Your task to perform on an android device: turn off improve location accuracy Image 0: 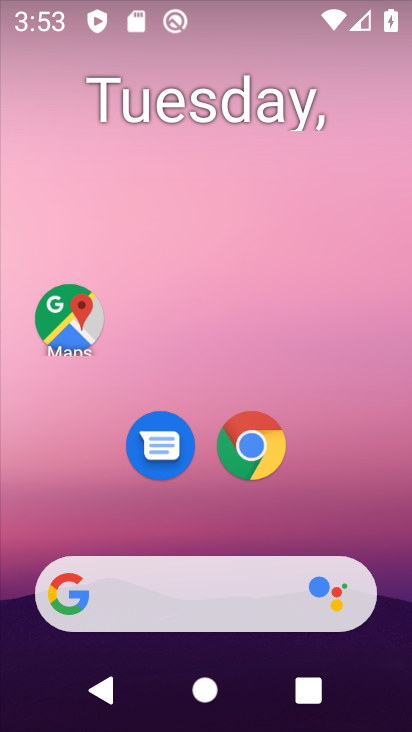
Step 0: drag from (284, 608) to (321, 21)
Your task to perform on an android device: turn off improve location accuracy Image 1: 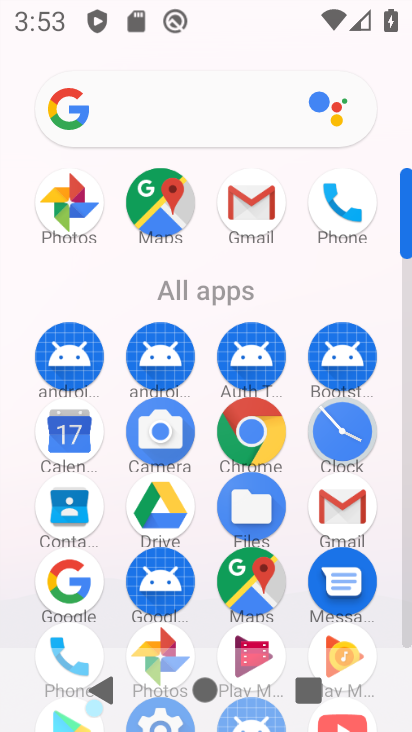
Step 1: drag from (292, 625) to (323, 140)
Your task to perform on an android device: turn off improve location accuracy Image 2: 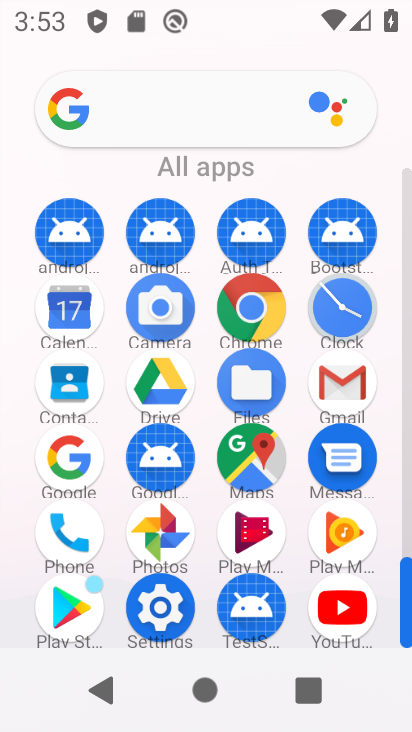
Step 2: click (172, 610)
Your task to perform on an android device: turn off improve location accuracy Image 3: 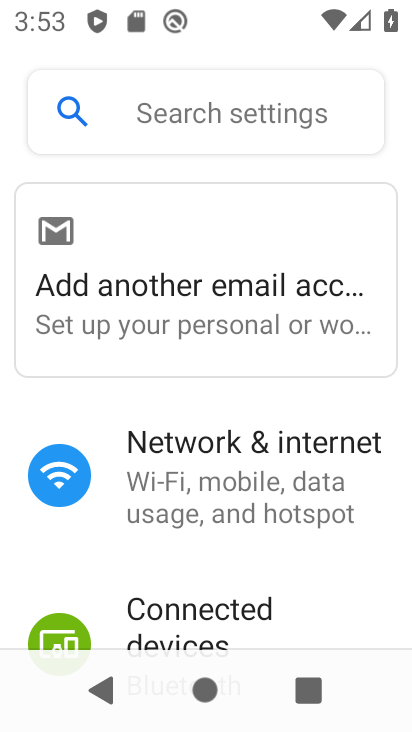
Step 3: drag from (189, 607) to (267, 6)
Your task to perform on an android device: turn off improve location accuracy Image 4: 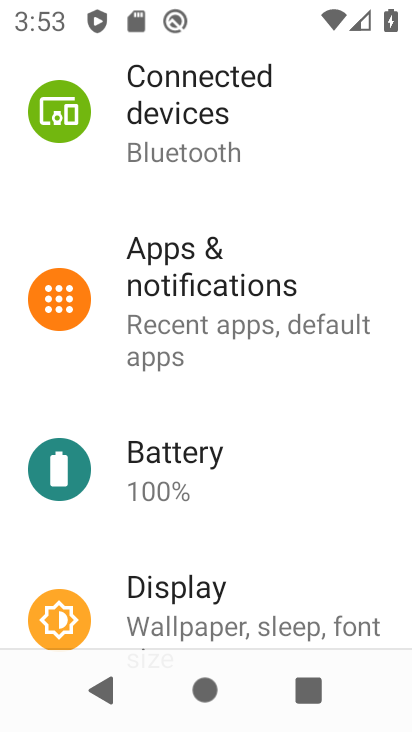
Step 4: drag from (204, 598) to (250, 67)
Your task to perform on an android device: turn off improve location accuracy Image 5: 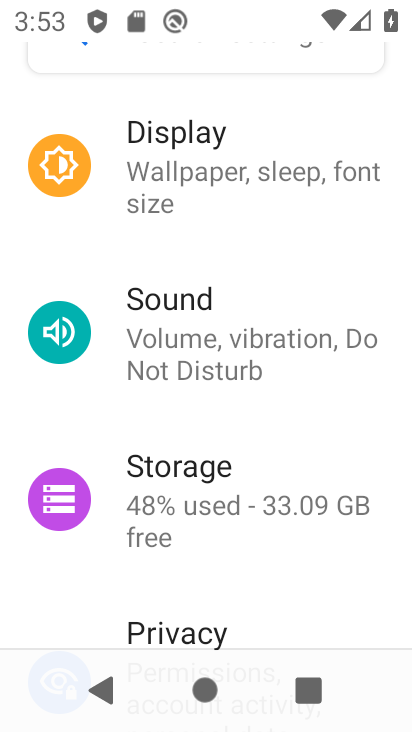
Step 5: drag from (202, 611) to (231, 84)
Your task to perform on an android device: turn off improve location accuracy Image 6: 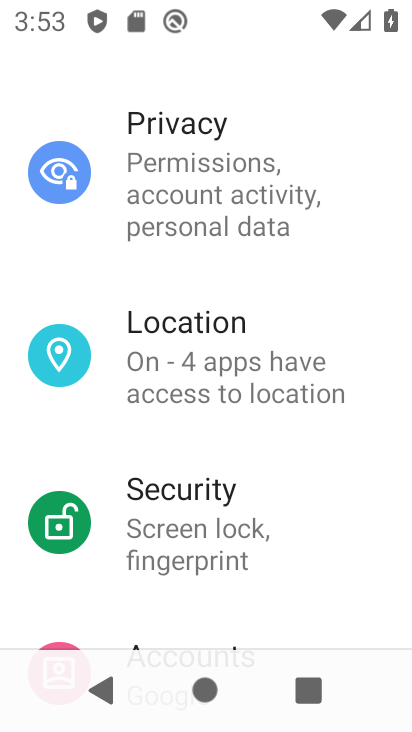
Step 6: click (233, 360)
Your task to perform on an android device: turn off improve location accuracy Image 7: 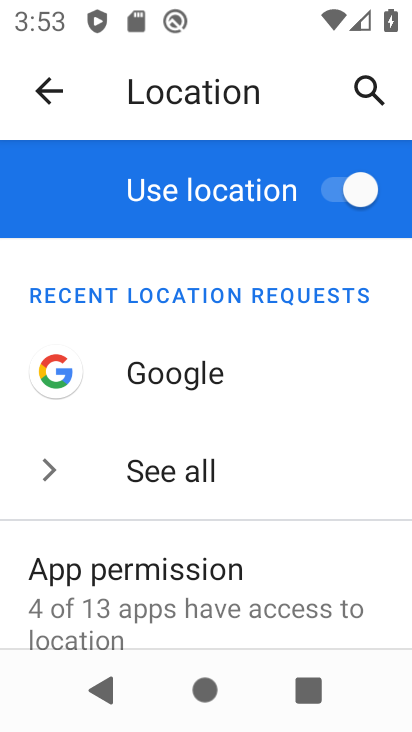
Step 7: drag from (263, 612) to (262, 172)
Your task to perform on an android device: turn off improve location accuracy Image 8: 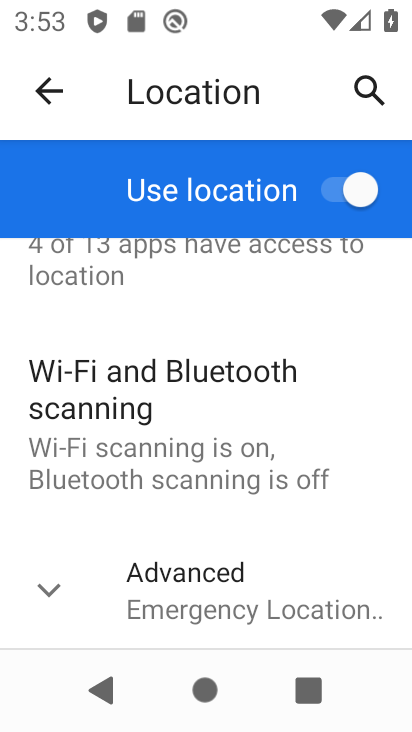
Step 8: click (241, 579)
Your task to perform on an android device: turn off improve location accuracy Image 9: 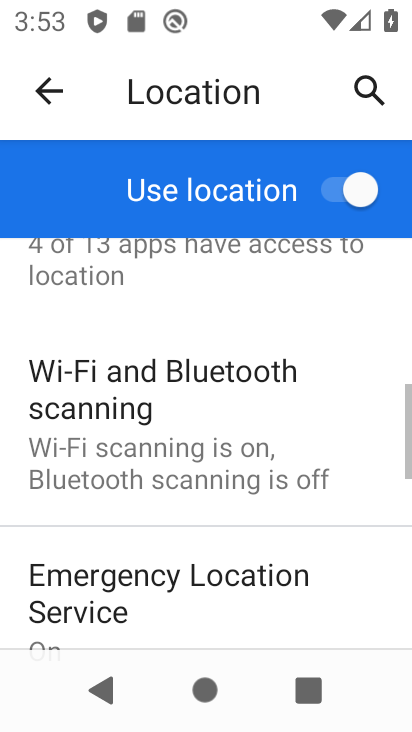
Step 9: drag from (240, 571) to (239, 303)
Your task to perform on an android device: turn off improve location accuracy Image 10: 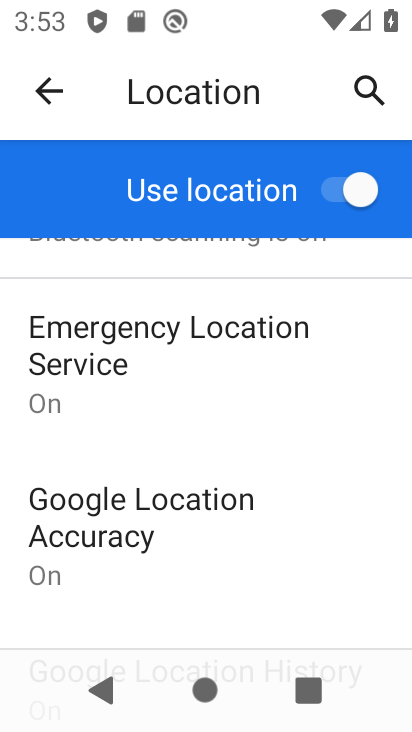
Step 10: click (182, 553)
Your task to perform on an android device: turn off improve location accuracy Image 11: 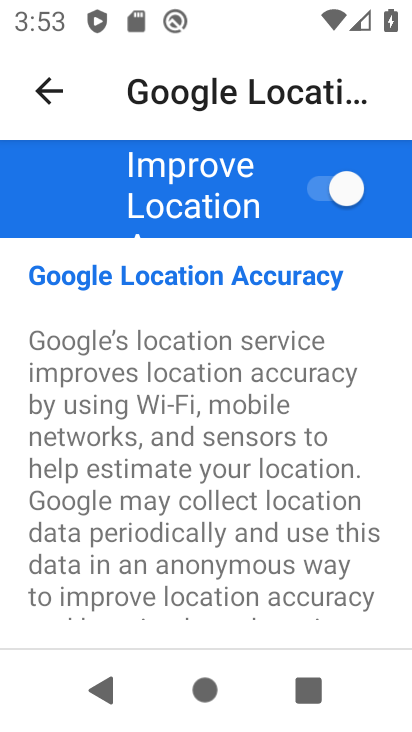
Step 11: click (314, 194)
Your task to perform on an android device: turn off improve location accuracy Image 12: 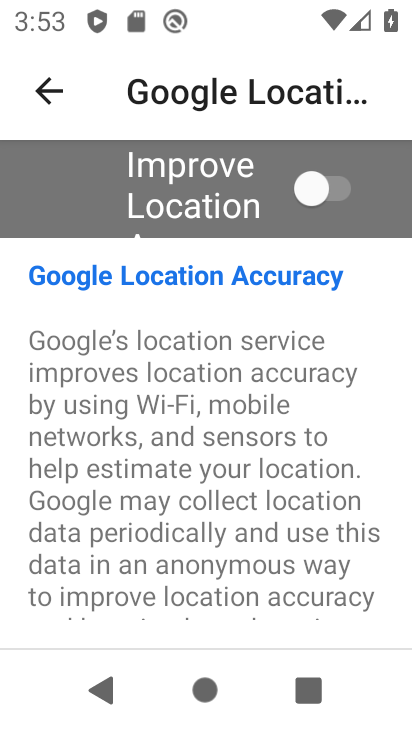
Step 12: task complete